Your task to perform on an android device: Go to sound settings Image 0: 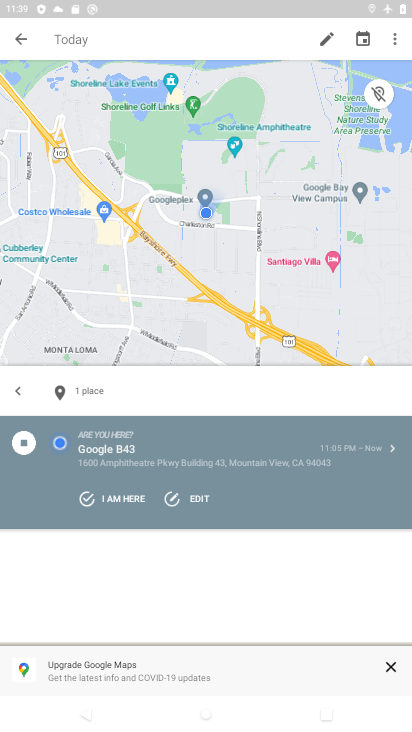
Step 0: press home button
Your task to perform on an android device: Go to sound settings Image 1: 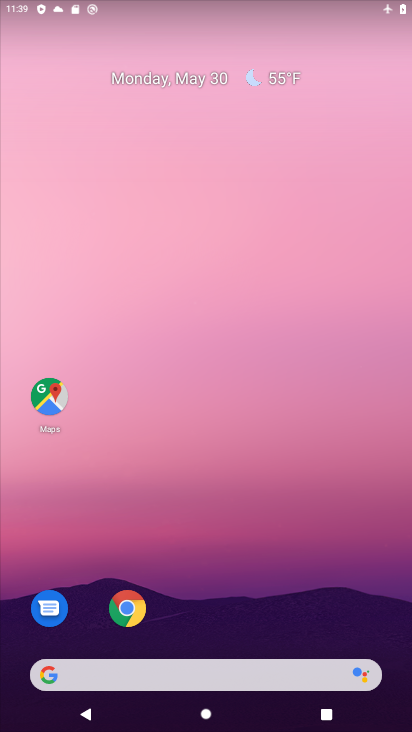
Step 1: drag from (223, 634) to (334, 240)
Your task to perform on an android device: Go to sound settings Image 2: 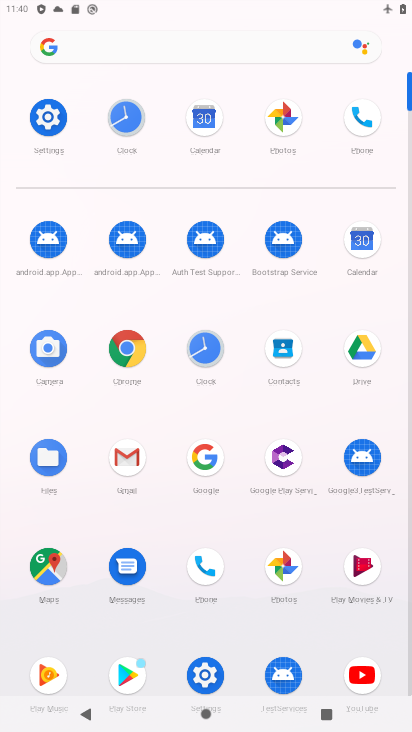
Step 2: click (50, 125)
Your task to perform on an android device: Go to sound settings Image 3: 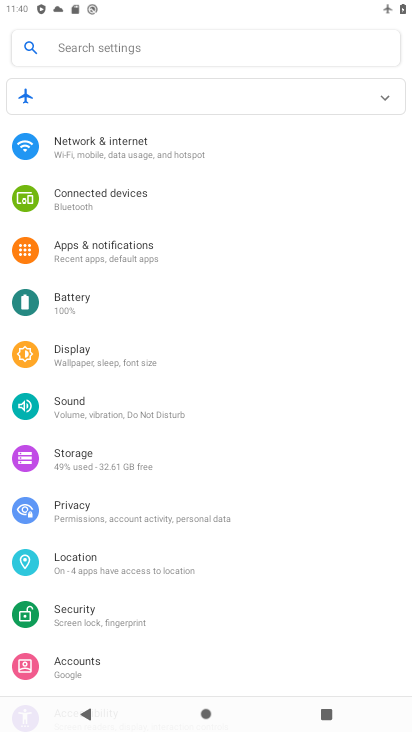
Step 3: click (90, 410)
Your task to perform on an android device: Go to sound settings Image 4: 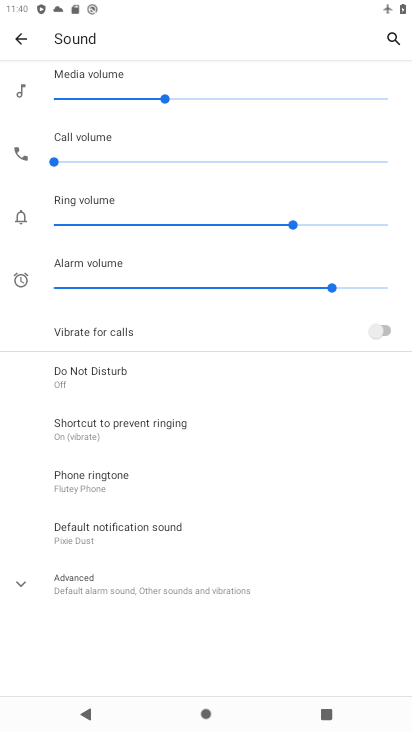
Step 4: task complete